Your task to perform on an android device: see tabs open on other devices in the chrome app Image 0: 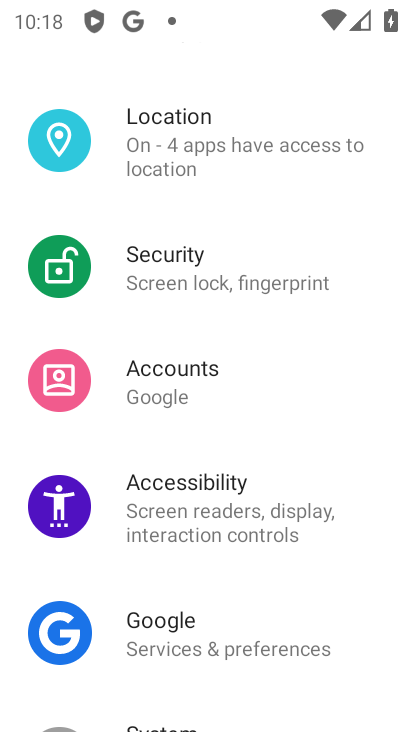
Step 0: press home button
Your task to perform on an android device: see tabs open on other devices in the chrome app Image 1: 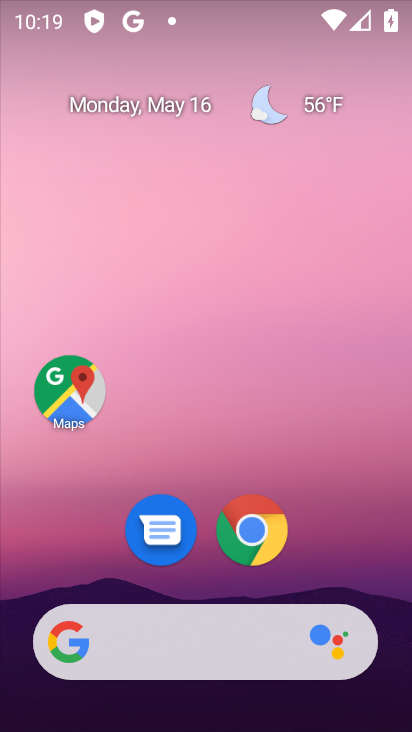
Step 1: drag from (366, 557) to (391, 122)
Your task to perform on an android device: see tabs open on other devices in the chrome app Image 2: 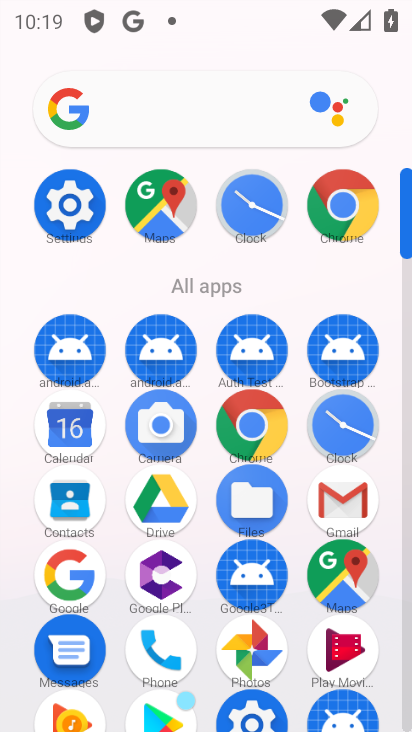
Step 2: click (259, 420)
Your task to perform on an android device: see tabs open on other devices in the chrome app Image 3: 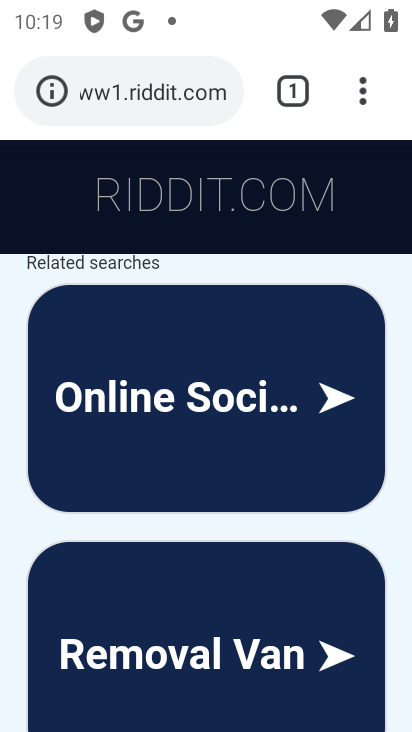
Step 3: click (364, 101)
Your task to perform on an android device: see tabs open on other devices in the chrome app Image 4: 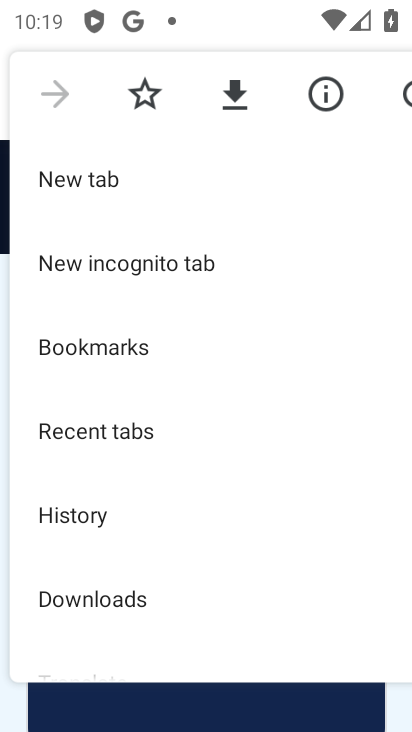
Step 4: click (153, 441)
Your task to perform on an android device: see tabs open on other devices in the chrome app Image 5: 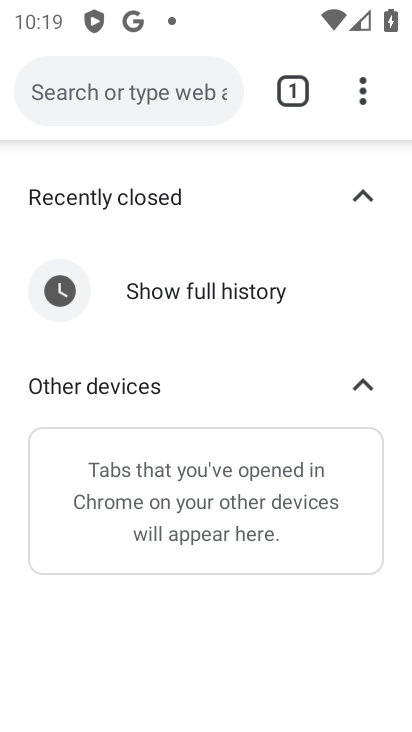
Step 5: click (291, 100)
Your task to perform on an android device: see tabs open on other devices in the chrome app Image 6: 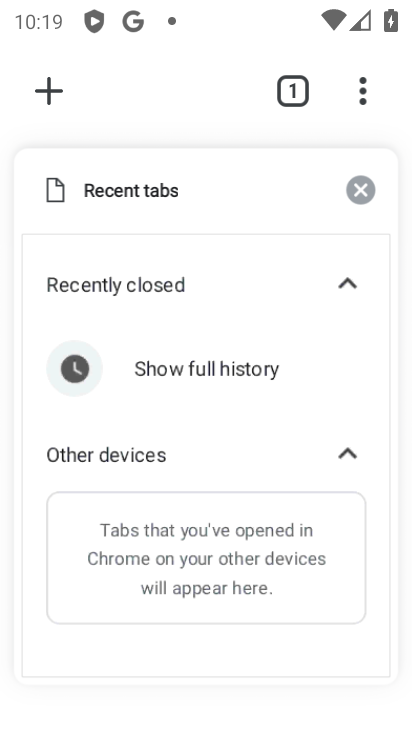
Step 6: task complete